Your task to perform on an android device: Open settings Image 0: 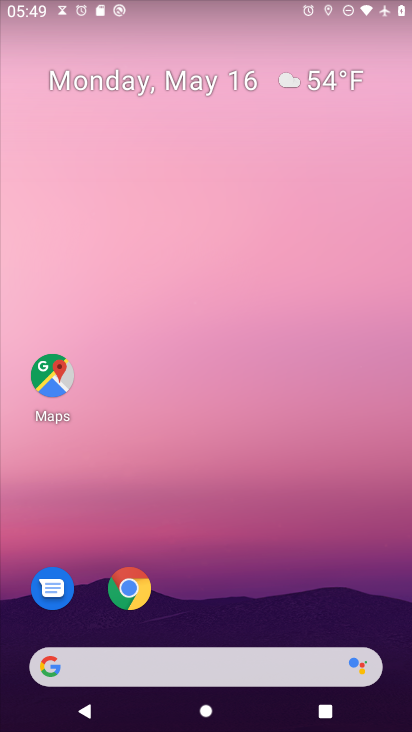
Step 0: drag from (224, 544) to (160, 45)
Your task to perform on an android device: Open settings Image 1: 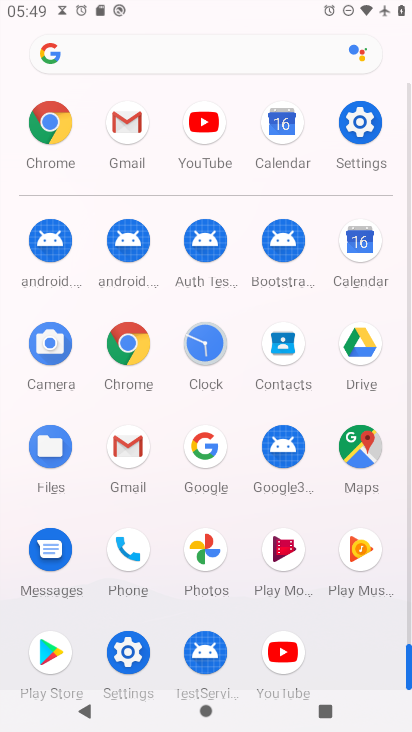
Step 1: click (126, 642)
Your task to perform on an android device: Open settings Image 2: 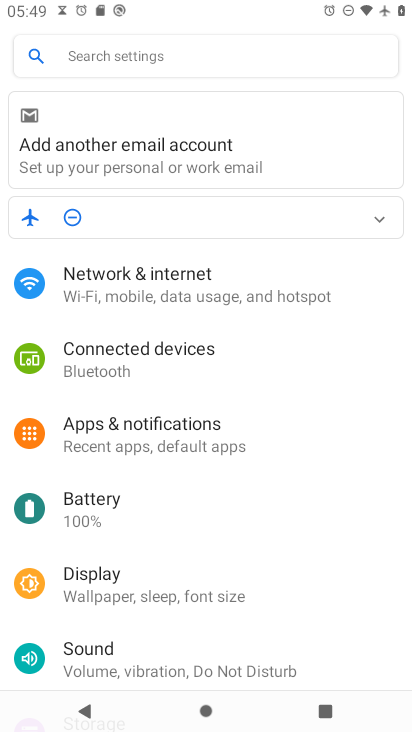
Step 2: task complete